Your task to perform on an android device: change the clock display to analog Image 0: 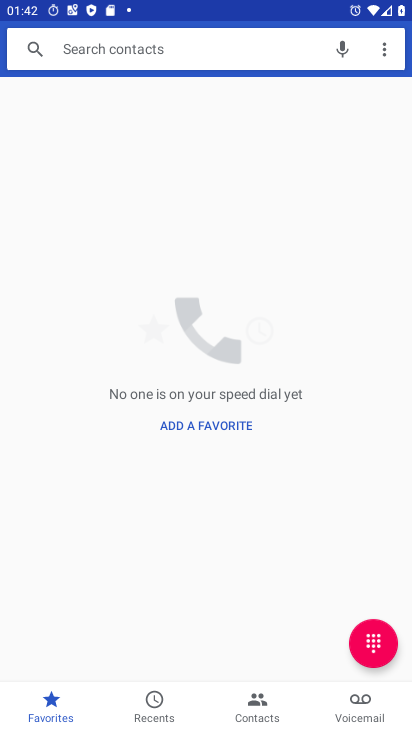
Step 0: press home button
Your task to perform on an android device: change the clock display to analog Image 1: 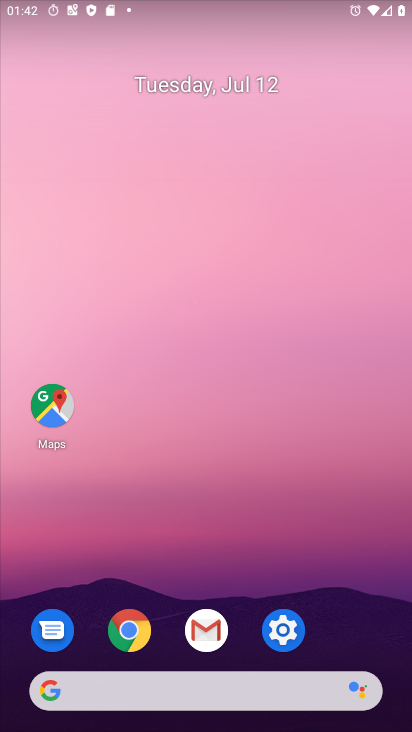
Step 1: drag from (281, 601) to (329, 121)
Your task to perform on an android device: change the clock display to analog Image 2: 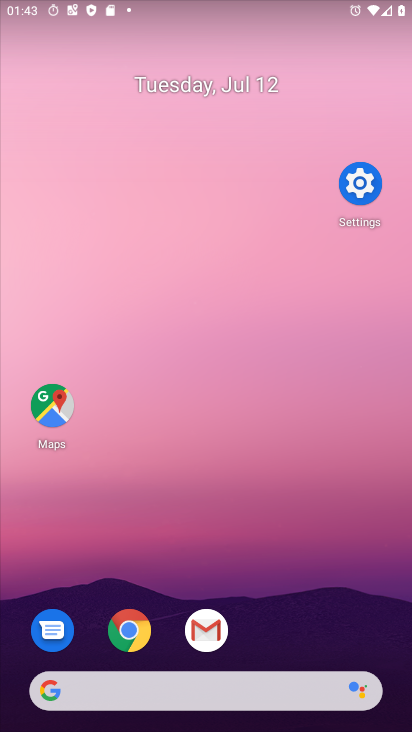
Step 2: drag from (300, 707) to (214, 119)
Your task to perform on an android device: change the clock display to analog Image 3: 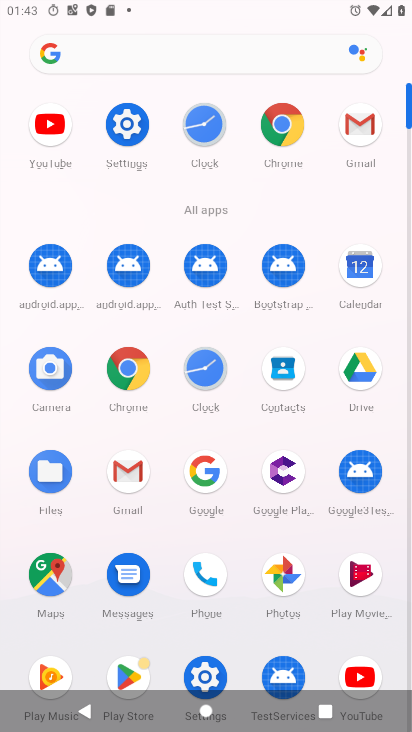
Step 3: click (201, 345)
Your task to perform on an android device: change the clock display to analog Image 4: 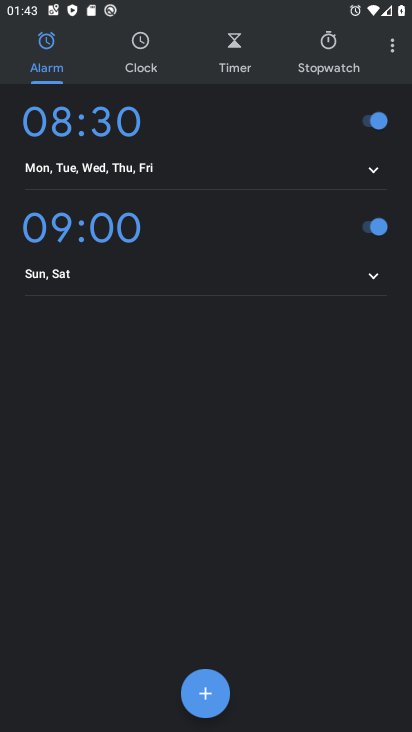
Step 4: click (393, 61)
Your task to perform on an android device: change the clock display to analog Image 5: 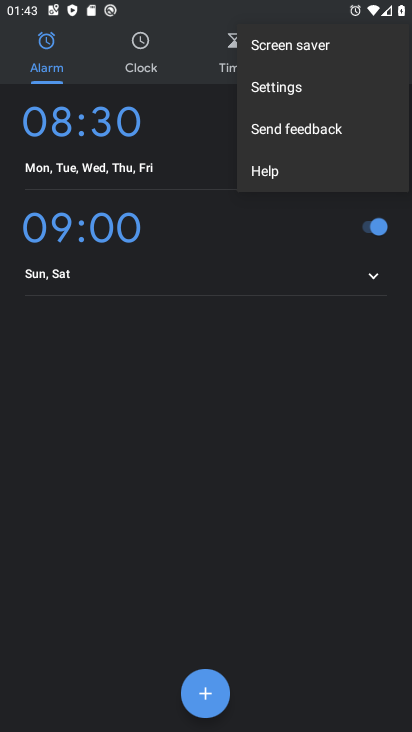
Step 5: click (283, 95)
Your task to perform on an android device: change the clock display to analog Image 6: 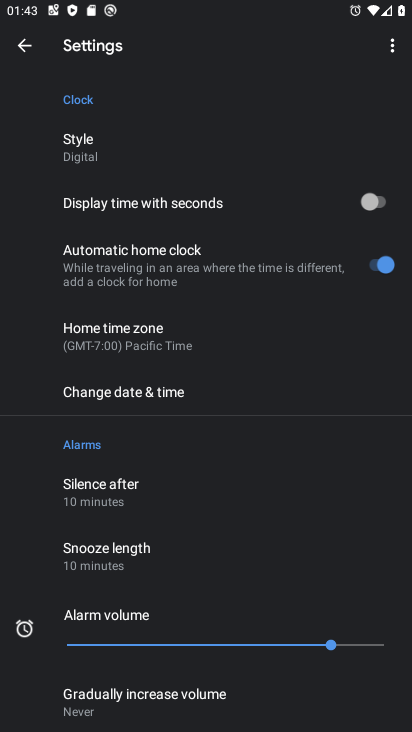
Step 6: click (102, 170)
Your task to perform on an android device: change the clock display to analog Image 7: 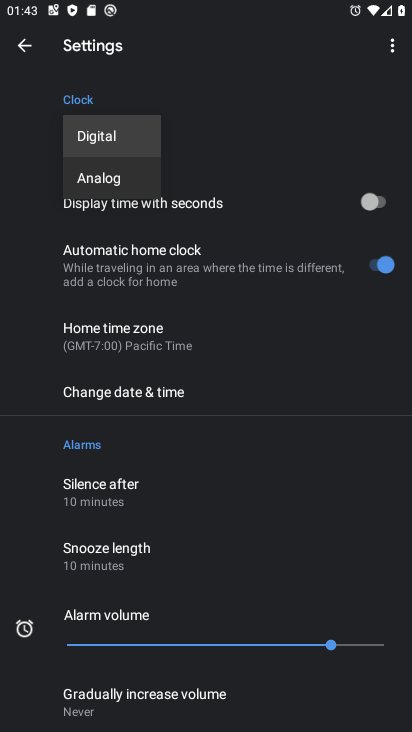
Step 7: click (101, 136)
Your task to perform on an android device: change the clock display to analog Image 8: 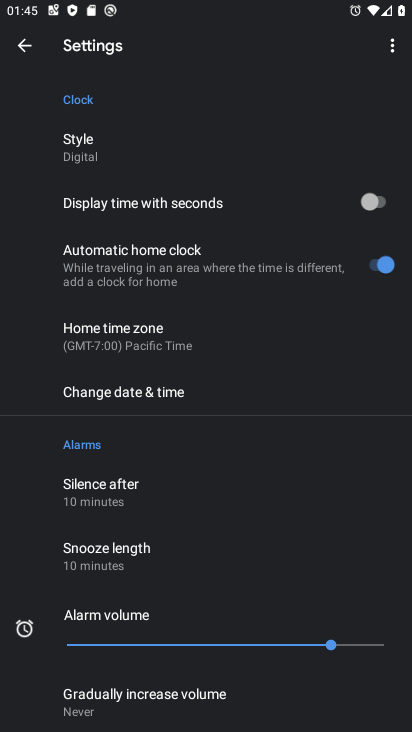
Step 8: task complete